Your task to perform on an android device: turn notification dots on Image 0: 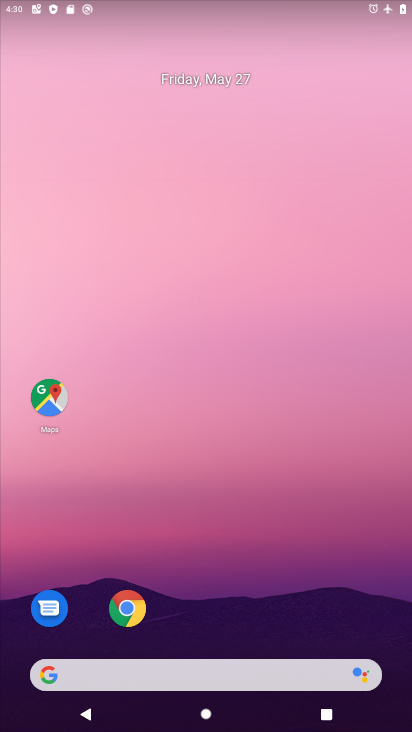
Step 0: drag from (231, 4) to (198, 567)
Your task to perform on an android device: turn notification dots on Image 1: 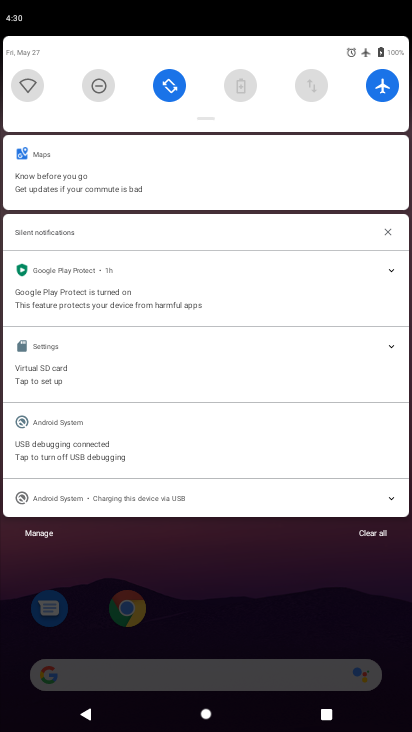
Step 1: click (376, 91)
Your task to perform on an android device: turn notification dots on Image 2: 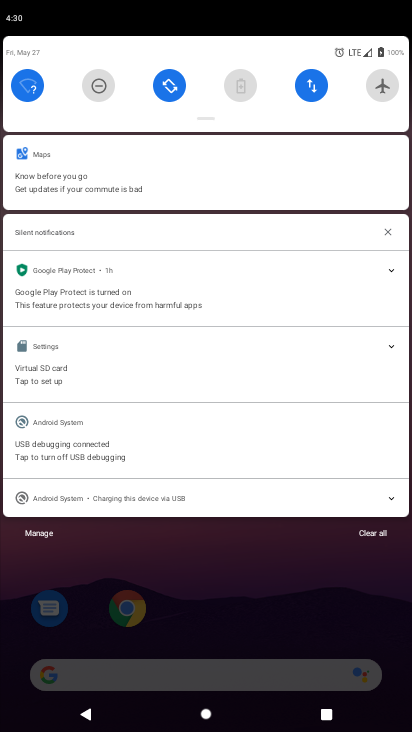
Step 2: click (288, 560)
Your task to perform on an android device: turn notification dots on Image 3: 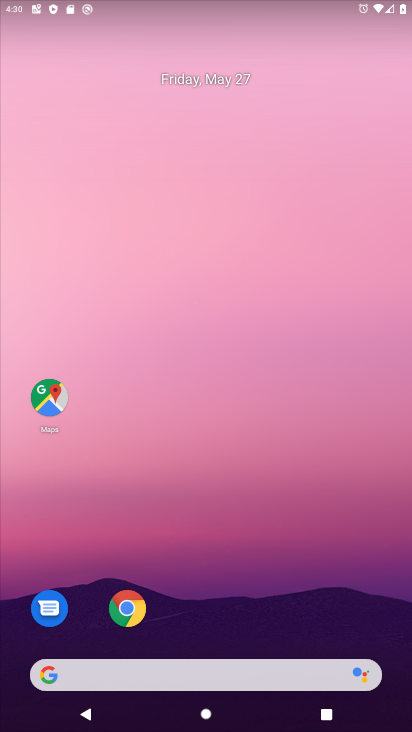
Step 3: drag from (232, 656) to (232, 120)
Your task to perform on an android device: turn notification dots on Image 4: 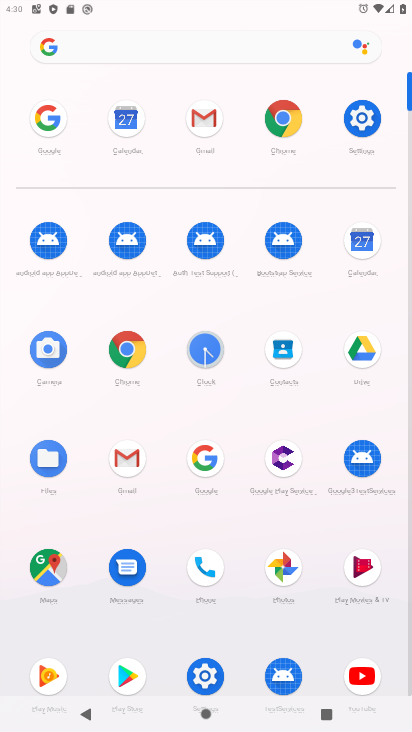
Step 4: click (368, 129)
Your task to perform on an android device: turn notification dots on Image 5: 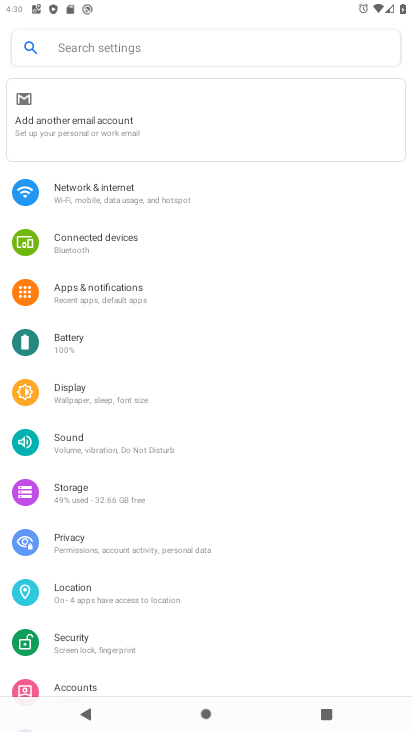
Step 5: click (111, 290)
Your task to perform on an android device: turn notification dots on Image 6: 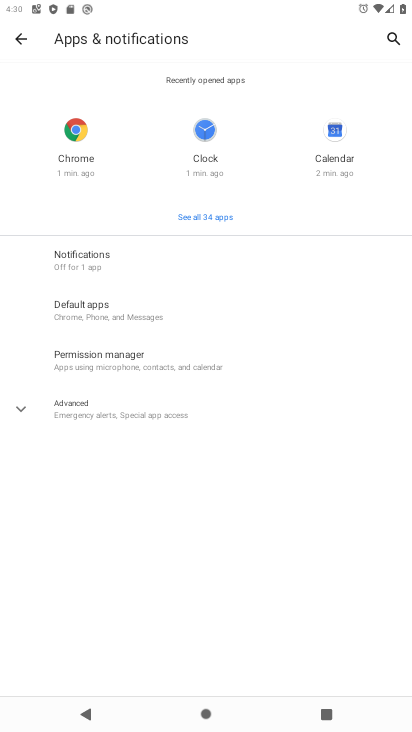
Step 6: click (100, 405)
Your task to perform on an android device: turn notification dots on Image 7: 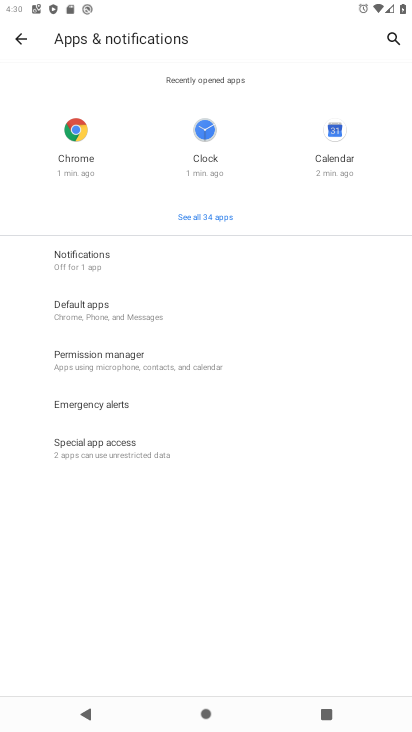
Step 7: click (97, 255)
Your task to perform on an android device: turn notification dots on Image 8: 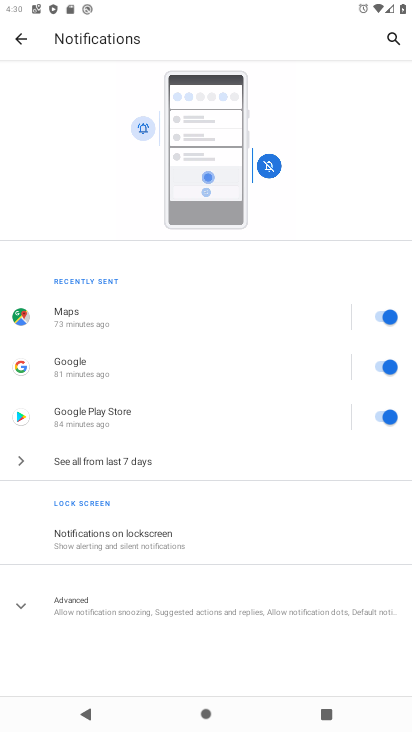
Step 8: click (106, 607)
Your task to perform on an android device: turn notification dots on Image 9: 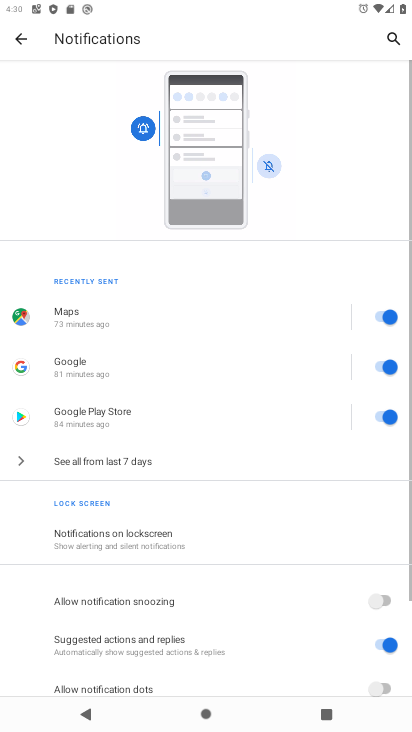
Step 9: drag from (143, 662) to (165, 225)
Your task to perform on an android device: turn notification dots on Image 10: 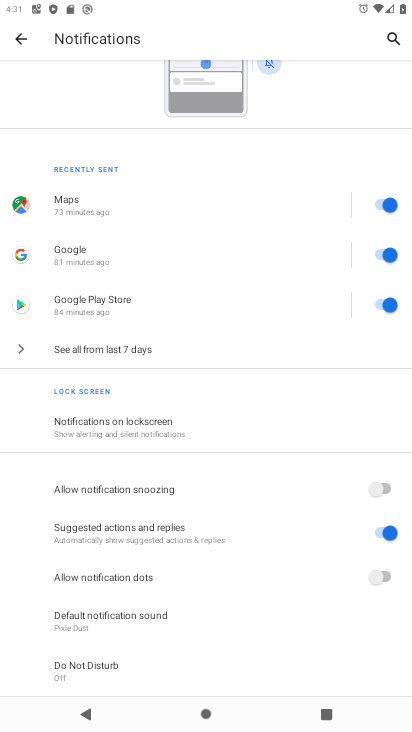
Step 10: click (377, 576)
Your task to perform on an android device: turn notification dots on Image 11: 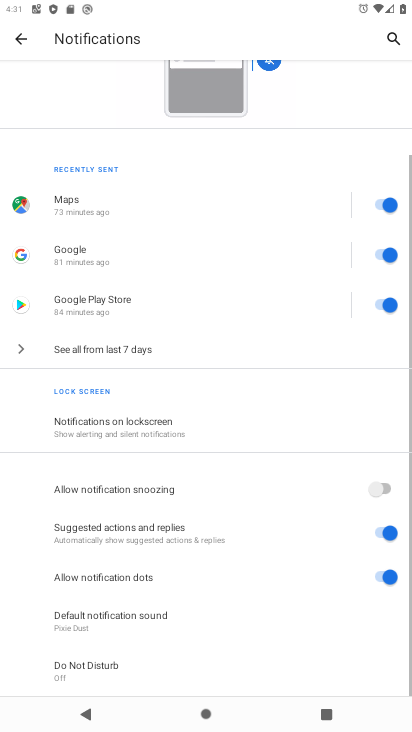
Step 11: task complete